Your task to perform on an android device: turn on location history Image 0: 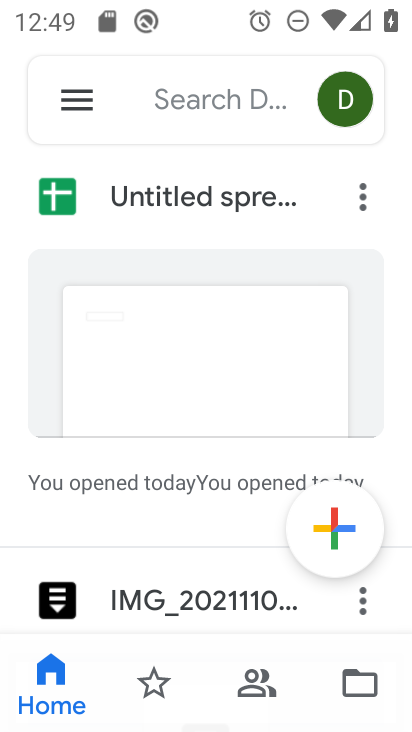
Step 0: press home button
Your task to perform on an android device: turn on location history Image 1: 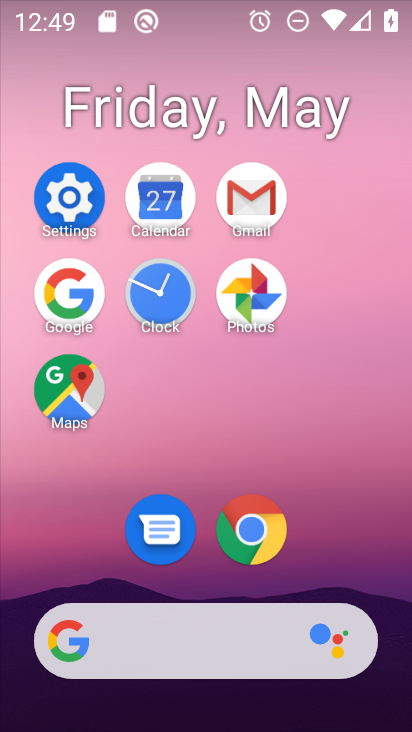
Step 1: click (85, 193)
Your task to perform on an android device: turn on location history Image 2: 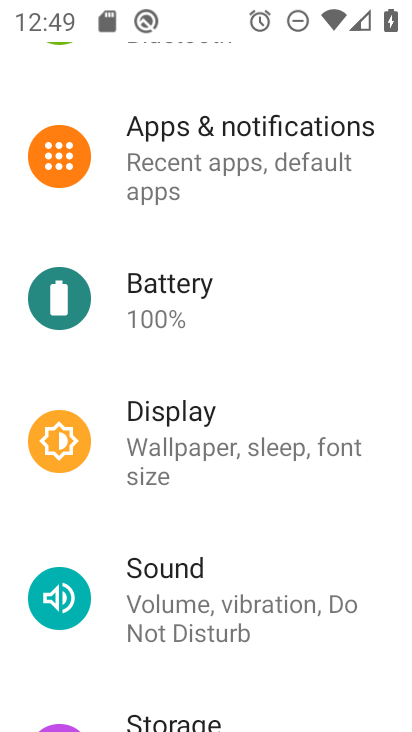
Step 2: drag from (282, 615) to (282, 115)
Your task to perform on an android device: turn on location history Image 3: 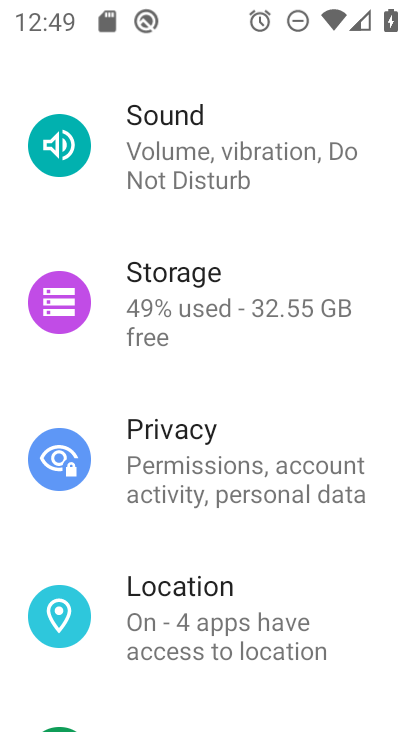
Step 3: click (262, 582)
Your task to perform on an android device: turn on location history Image 4: 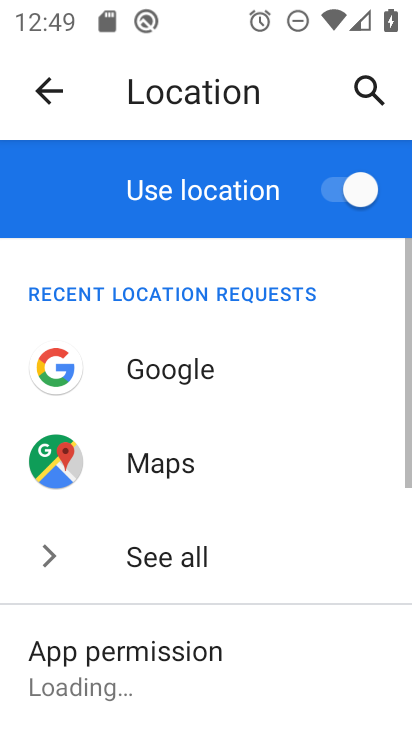
Step 4: drag from (260, 423) to (285, 173)
Your task to perform on an android device: turn on location history Image 5: 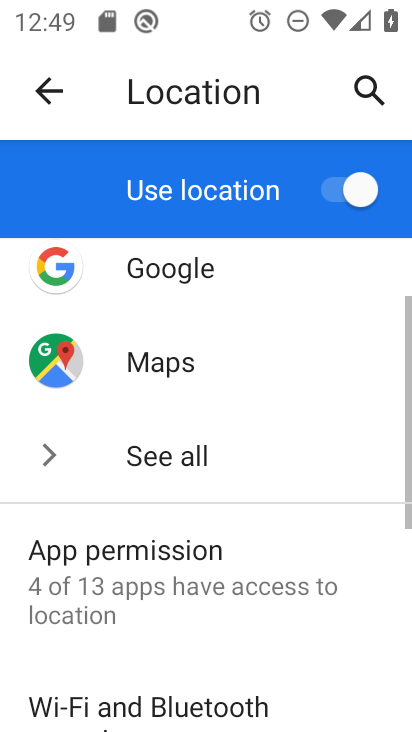
Step 5: drag from (196, 638) to (237, 217)
Your task to perform on an android device: turn on location history Image 6: 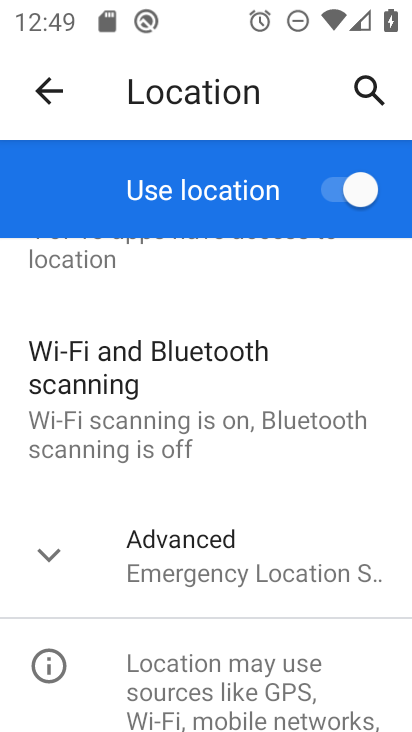
Step 6: click (222, 542)
Your task to perform on an android device: turn on location history Image 7: 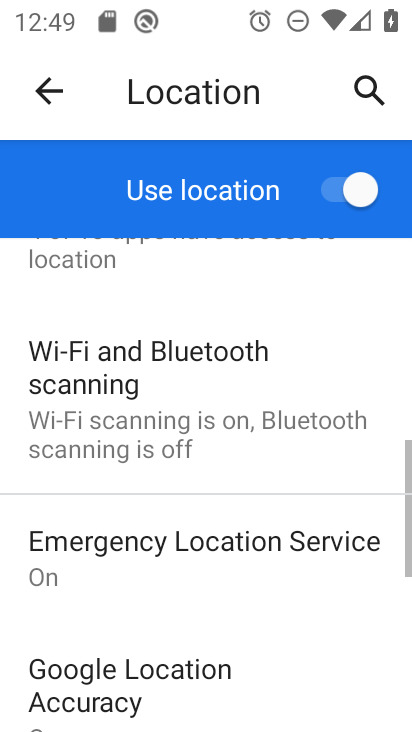
Step 7: drag from (251, 611) to (257, 290)
Your task to perform on an android device: turn on location history Image 8: 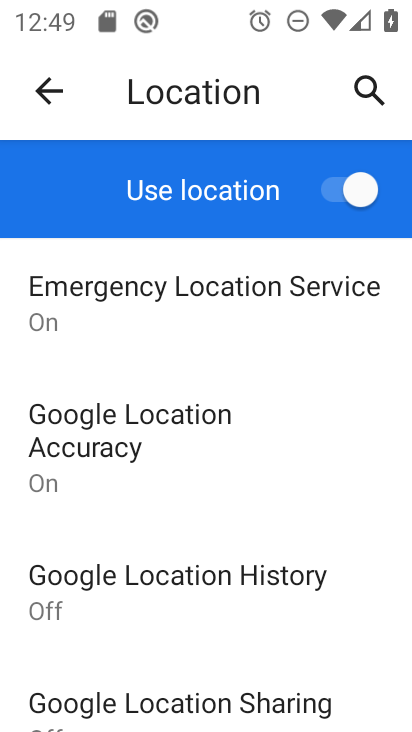
Step 8: click (321, 594)
Your task to perform on an android device: turn on location history Image 9: 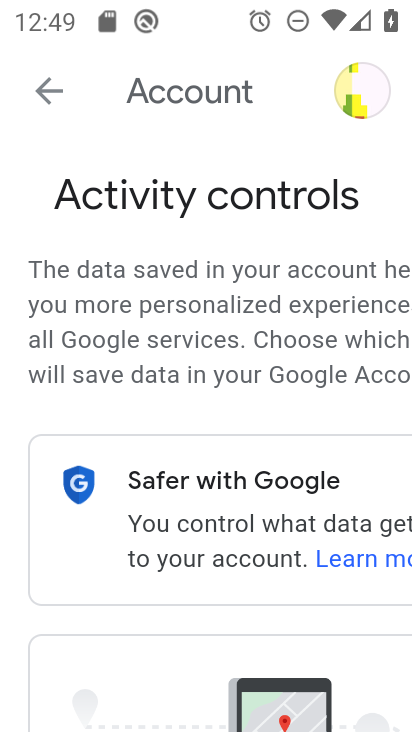
Step 9: task complete